Your task to perform on an android device: Open notification settings Image 0: 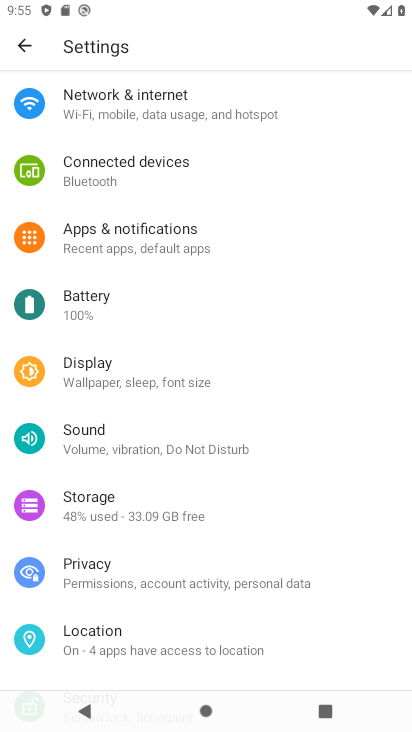
Step 0: click (182, 246)
Your task to perform on an android device: Open notification settings Image 1: 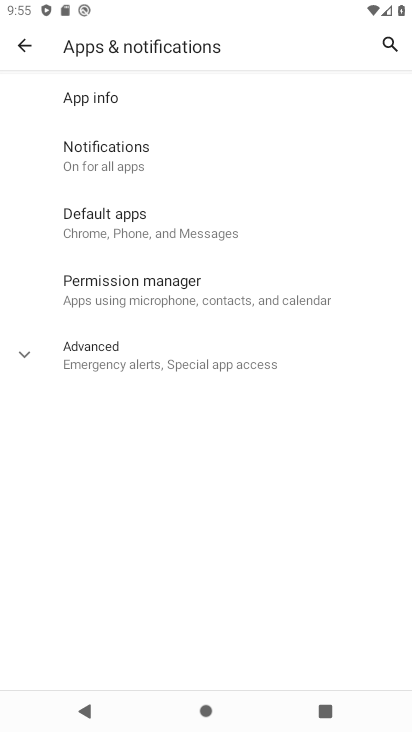
Step 1: drag from (148, 315) to (185, 151)
Your task to perform on an android device: Open notification settings Image 2: 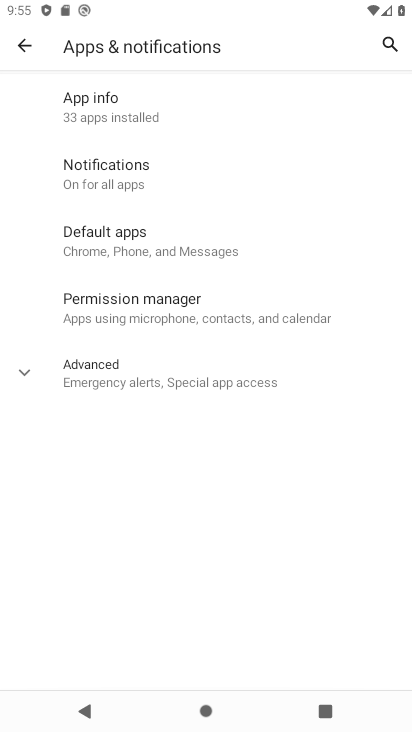
Step 2: click (185, 166)
Your task to perform on an android device: Open notification settings Image 3: 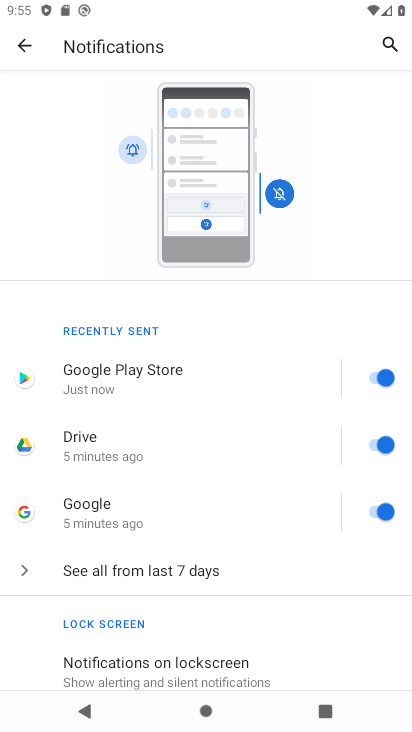
Step 3: task complete